Your task to perform on an android device: find photos in the google photos app Image 0: 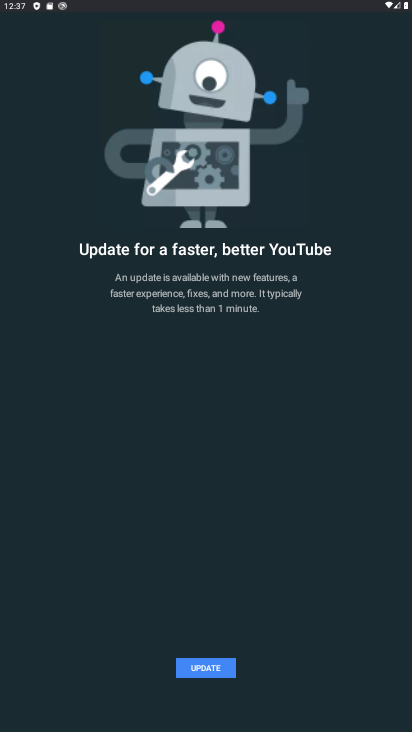
Step 0: press home button
Your task to perform on an android device: find photos in the google photos app Image 1: 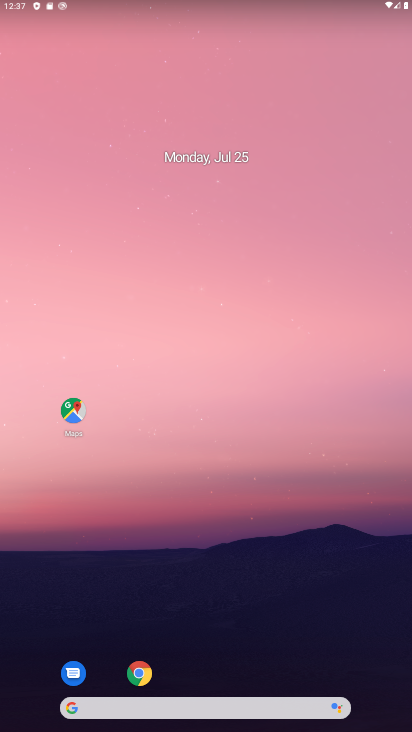
Step 1: drag from (206, 728) to (192, 10)
Your task to perform on an android device: find photos in the google photos app Image 2: 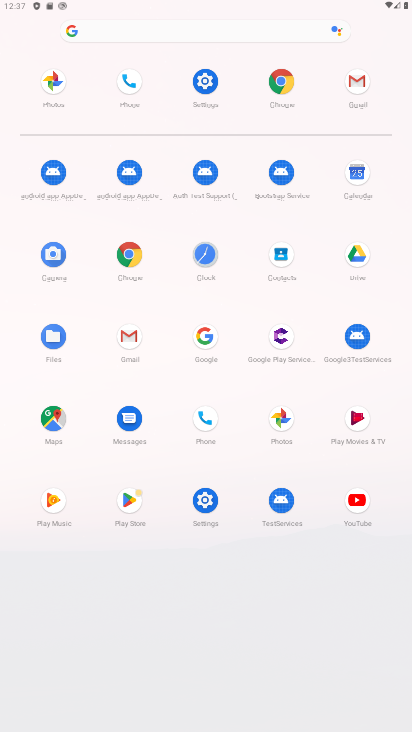
Step 2: click (45, 78)
Your task to perform on an android device: find photos in the google photos app Image 3: 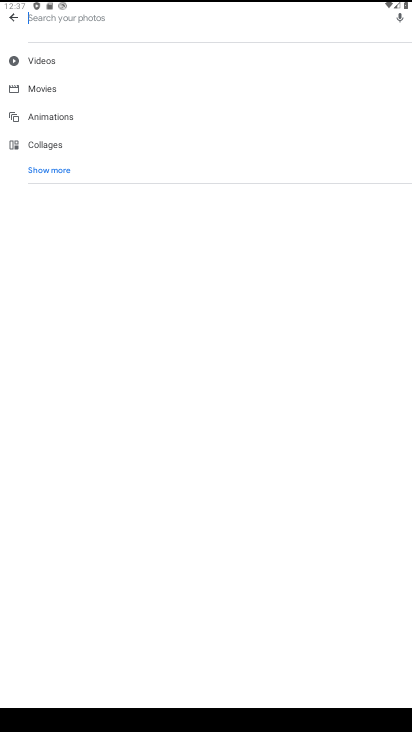
Step 3: click (4, 16)
Your task to perform on an android device: find photos in the google photos app Image 4: 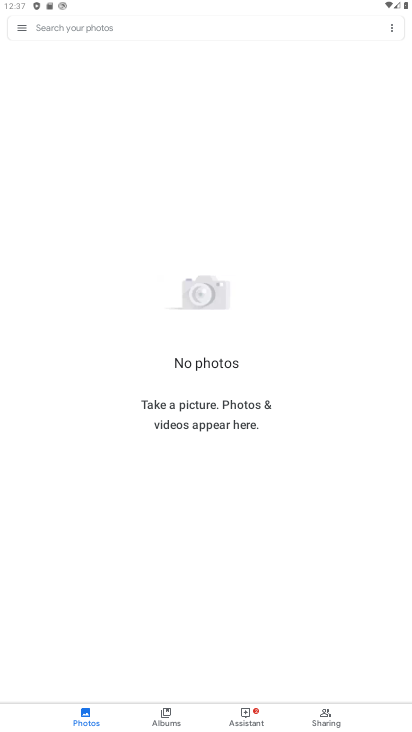
Step 4: task complete